Your task to perform on an android device: find which apps use the phone's location Image 0: 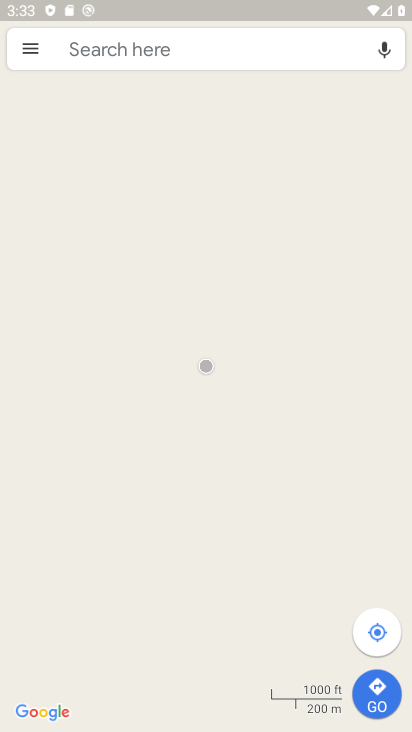
Step 0: press home button
Your task to perform on an android device: find which apps use the phone's location Image 1: 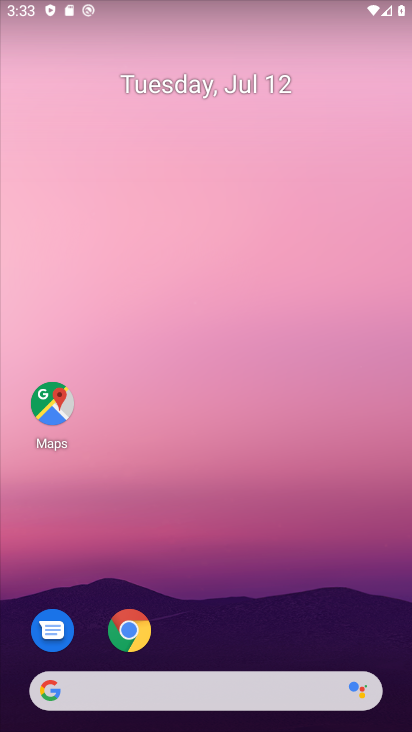
Step 1: drag from (245, 652) to (245, 189)
Your task to perform on an android device: find which apps use the phone's location Image 2: 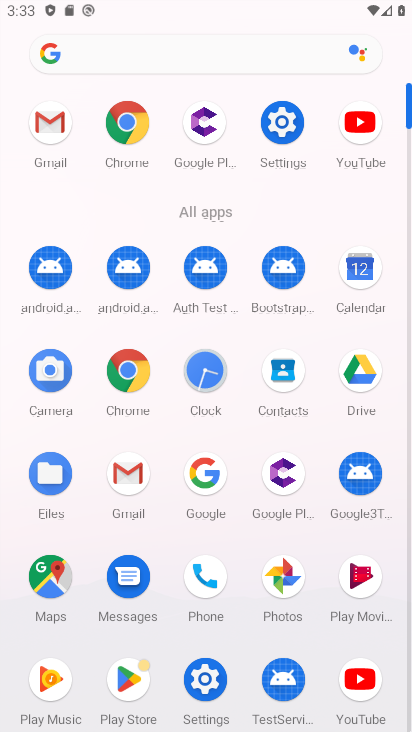
Step 2: click (281, 114)
Your task to perform on an android device: find which apps use the phone's location Image 3: 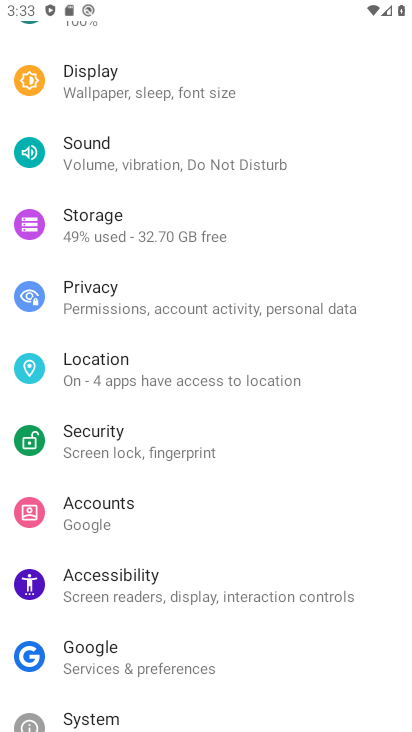
Step 3: click (169, 363)
Your task to perform on an android device: find which apps use the phone's location Image 4: 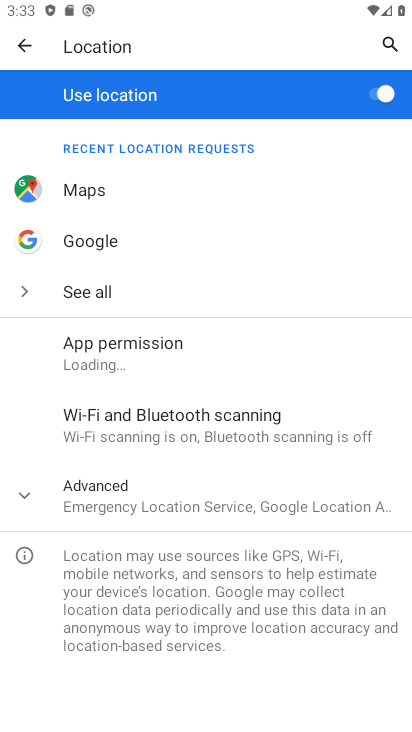
Step 4: click (169, 363)
Your task to perform on an android device: find which apps use the phone's location Image 5: 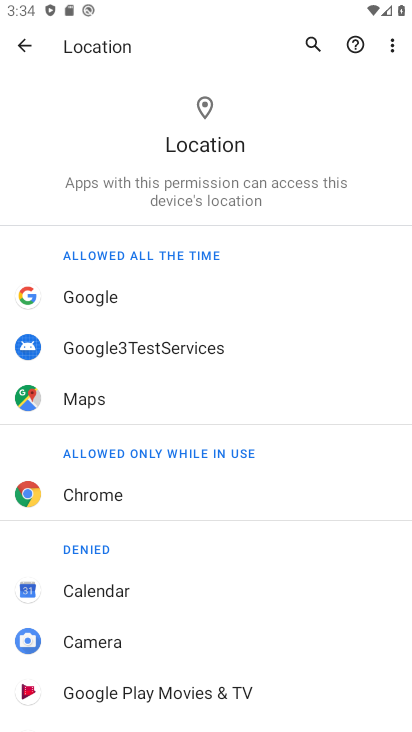
Step 5: task complete